Your task to perform on an android device: Turn on the flashlight Image 0: 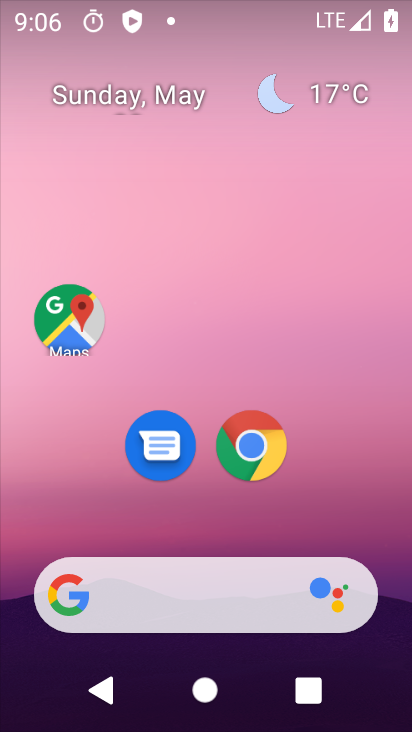
Step 0: drag from (203, 504) to (257, 20)
Your task to perform on an android device: Turn on the flashlight Image 1: 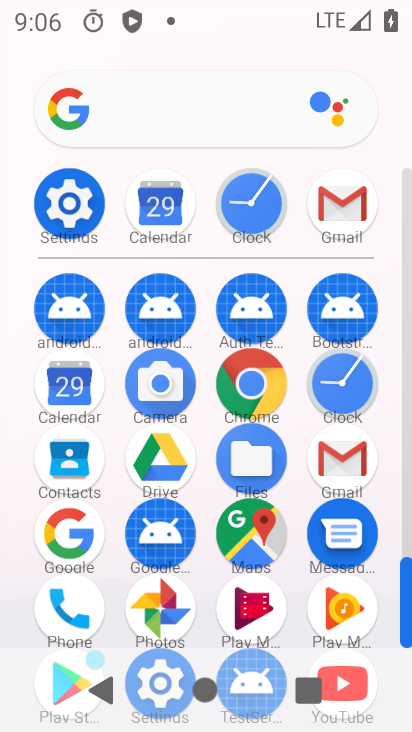
Step 1: click (58, 206)
Your task to perform on an android device: Turn on the flashlight Image 2: 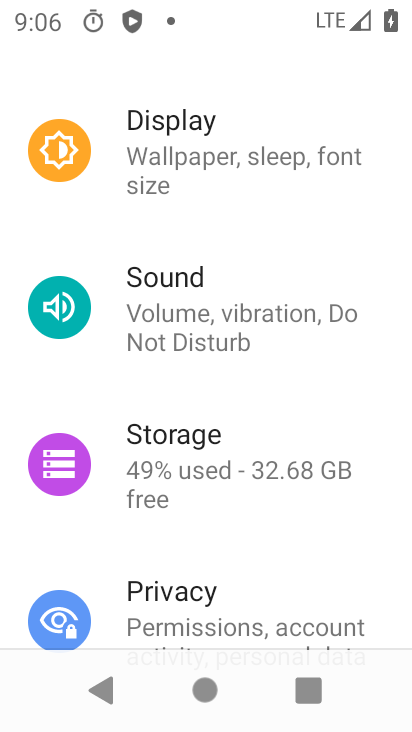
Step 2: drag from (199, 103) to (381, 605)
Your task to perform on an android device: Turn on the flashlight Image 3: 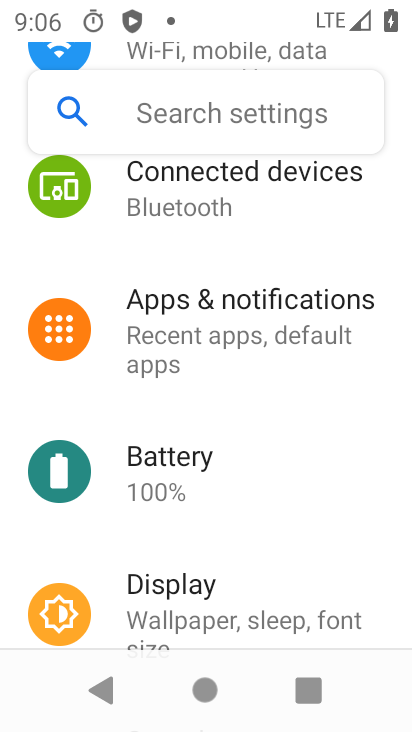
Step 3: click (217, 114)
Your task to perform on an android device: Turn on the flashlight Image 4: 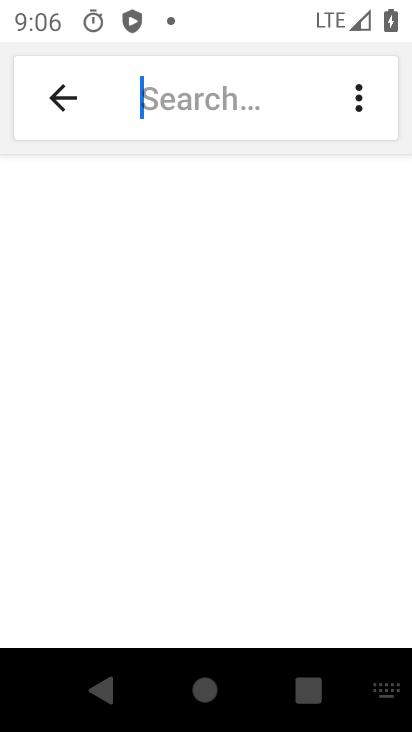
Step 4: click (200, 233)
Your task to perform on an android device: Turn on the flashlight Image 5: 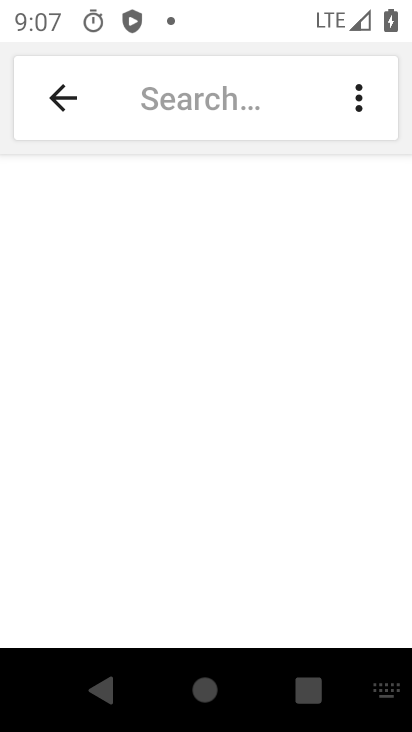
Step 5: type "flashlight"
Your task to perform on an android device: Turn on the flashlight Image 6: 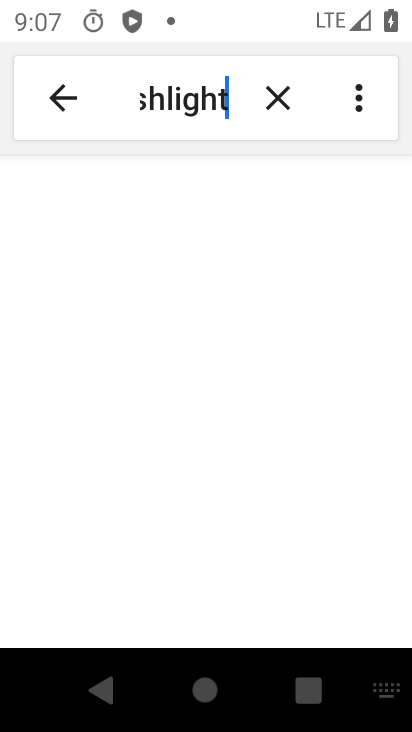
Step 6: type ""
Your task to perform on an android device: Turn on the flashlight Image 7: 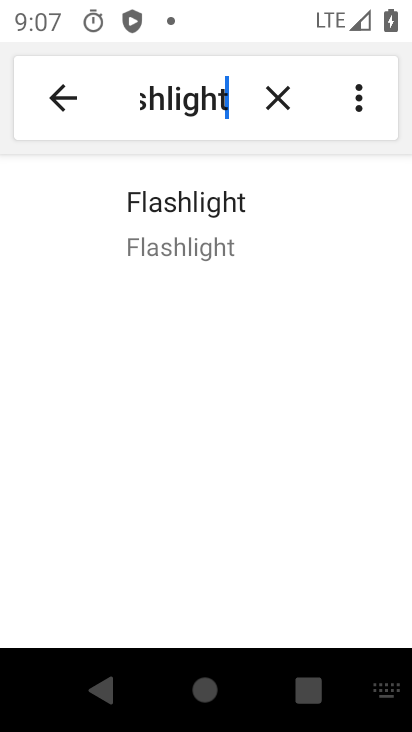
Step 7: click (237, 213)
Your task to perform on an android device: Turn on the flashlight Image 8: 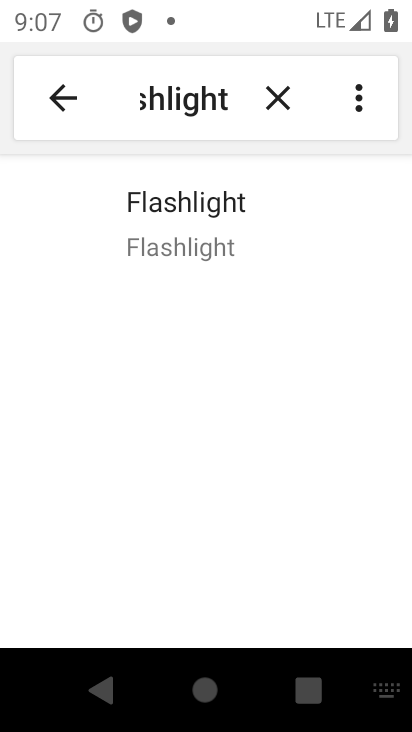
Step 8: task complete